Your task to perform on an android device: Open eBay Image 0: 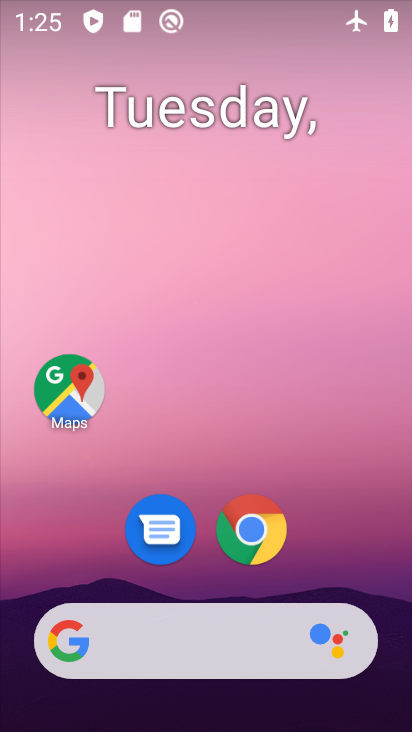
Step 0: click (276, 525)
Your task to perform on an android device: Open eBay Image 1: 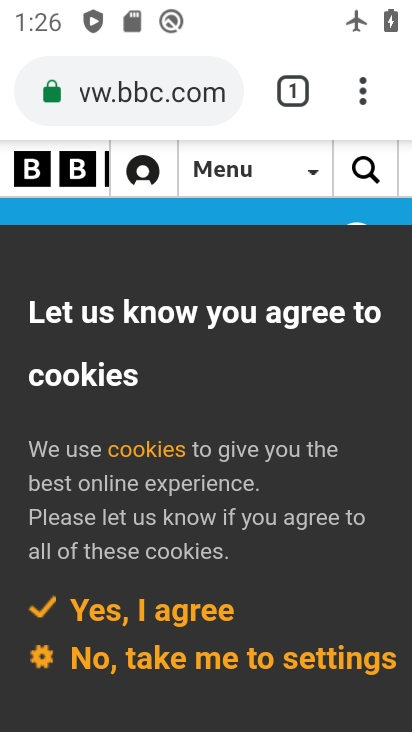
Step 1: click (304, 96)
Your task to perform on an android device: Open eBay Image 2: 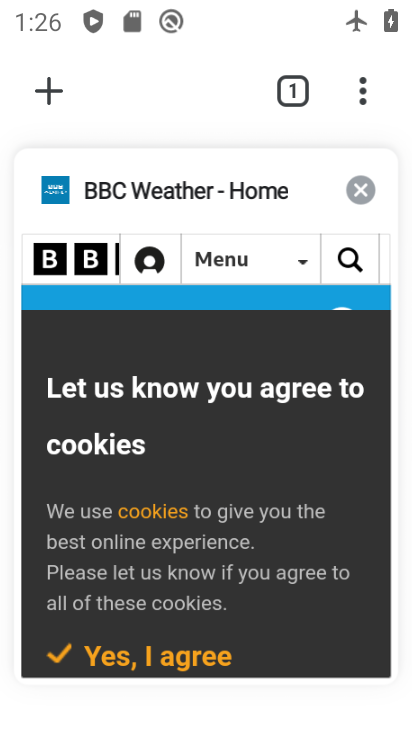
Step 2: click (53, 86)
Your task to perform on an android device: Open eBay Image 3: 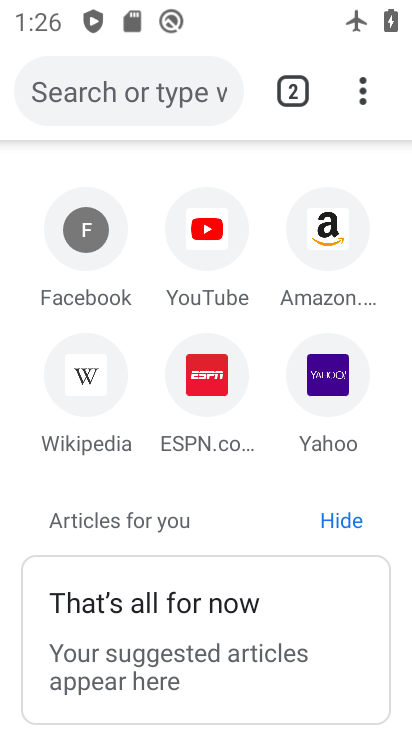
Step 3: click (195, 97)
Your task to perform on an android device: Open eBay Image 4: 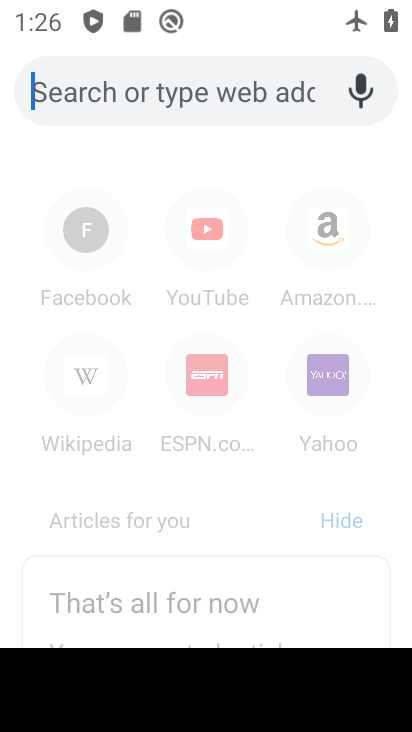
Step 4: type "ebay"
Your task to perform on an android device: Open eBay Image 5: 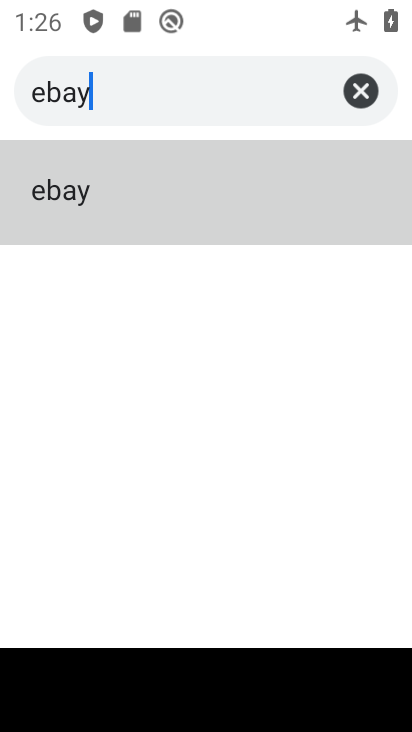
Step 5: click (279, 234)
Your task to perform on an android device: Open eBay Image 6: 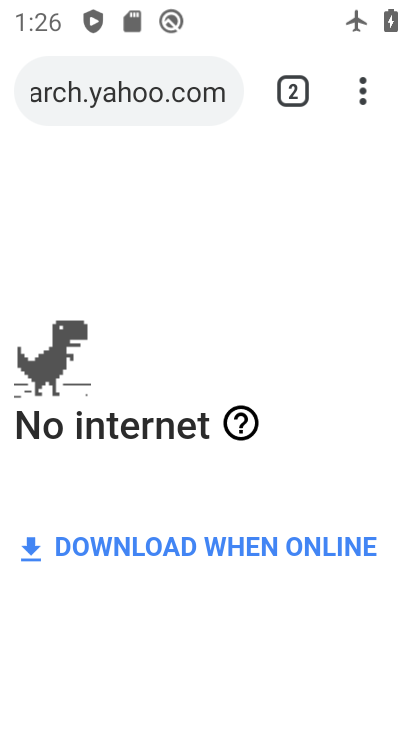
Step 6: task complete